Your task to perform on an android device: turn on notifications settings in the gmail app Image 0: 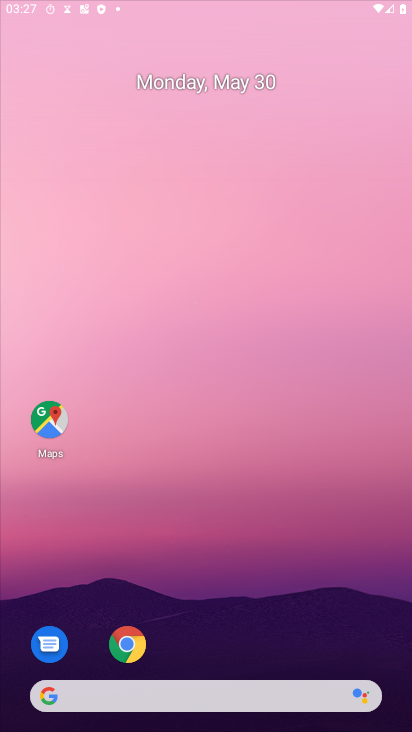
Step 0: press home button
Your task to perform on an android device: turn on notifications settings in the gmail app Image 1: 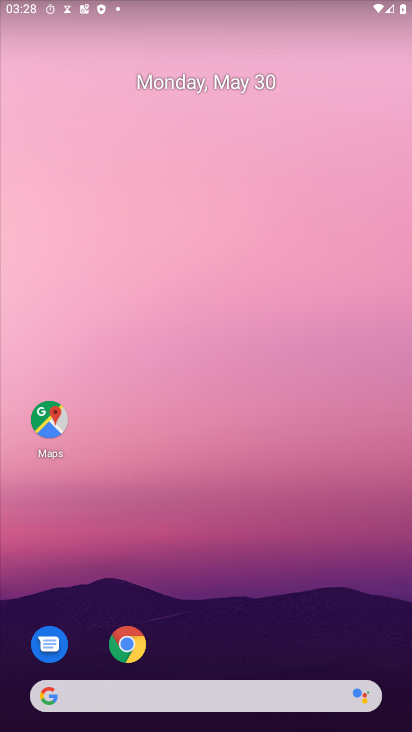
Step 1: drag from (288, 626) to (320, 51)
Your task to perform on an android device: turn on notifications settings in the gmail app Image 2: 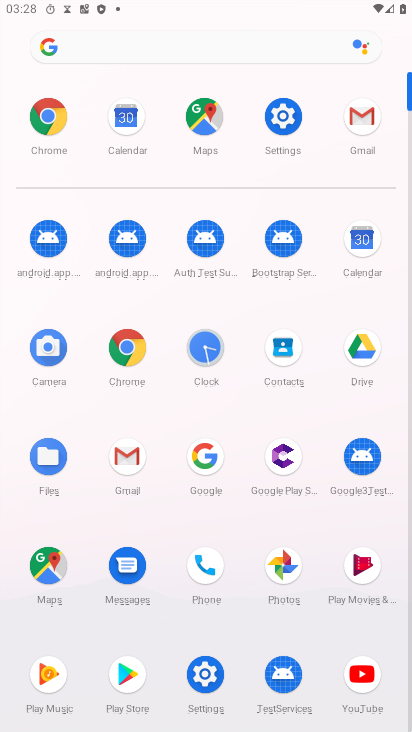
Step 2: click (358, 121)
Your task to perform on an android device: turn on notifications settings in the gmail app Image 3: 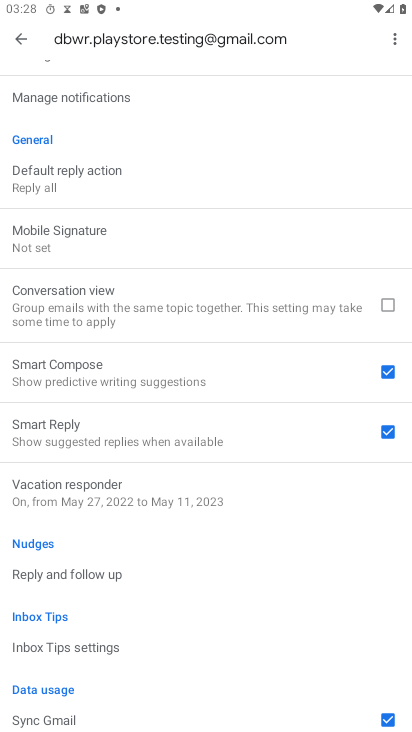
Step 3: click (19, 38)
Your task to perform on an android device: turn on notifications settings in the gmail app Image 4: 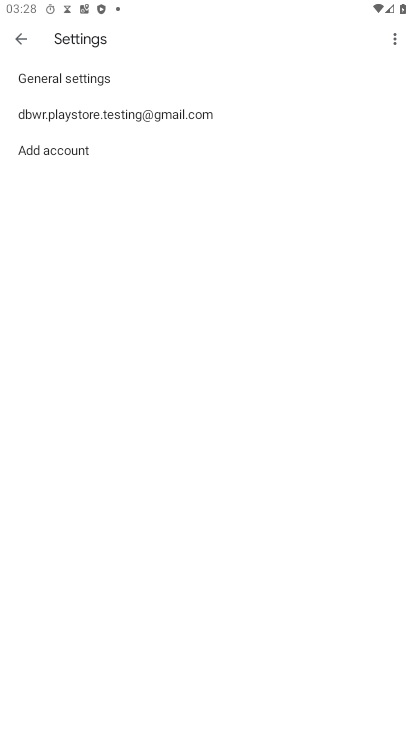
Step 4: click (62, 80)
Your task to perform on an android device: turn on notifications settings in the gmail app Image 5: 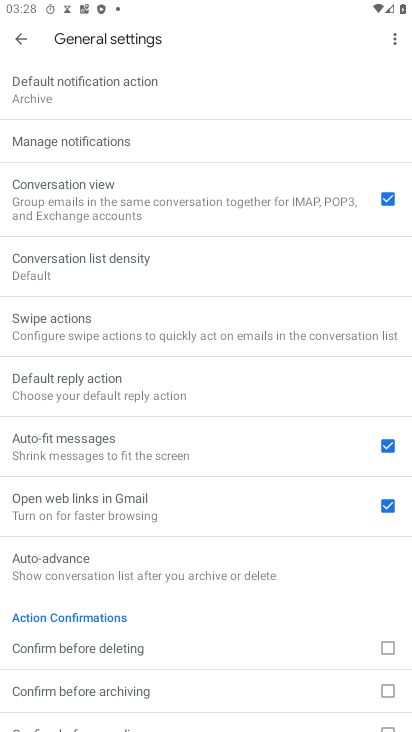
Step 5: click (79, 139)
Your task to perform on an android device: turn on notifications settings in the gmail app Image 6: 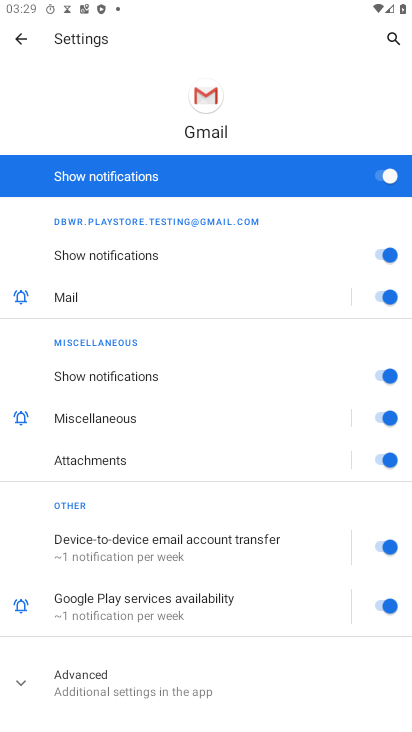
Step 6: task complete